Your task to perform on an android device: When is my next meeting? Image 0: 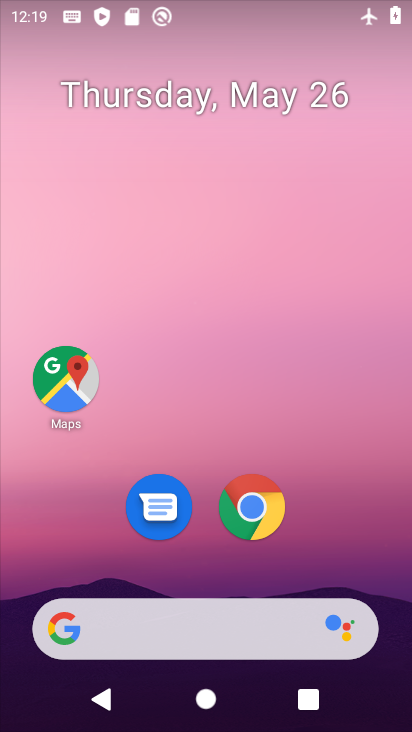
Step 0: drag from (216, 581) to (248, 185)
Your task to perform on an android device: When is my next meeting? Image 1: 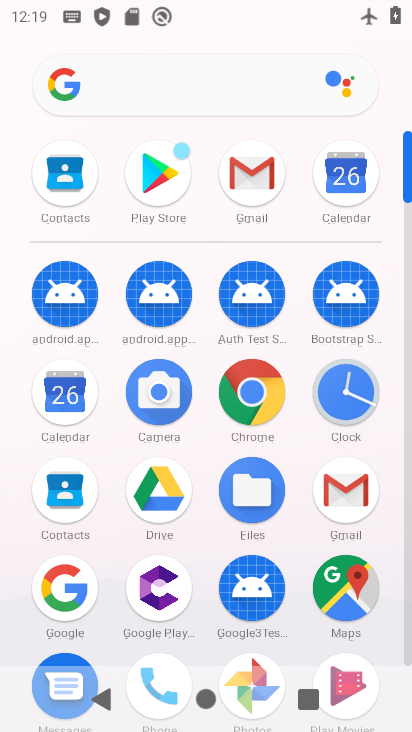
Step 1: click (71, 395)
Your task to perform on an android device: When is my next meeting? Image 2: 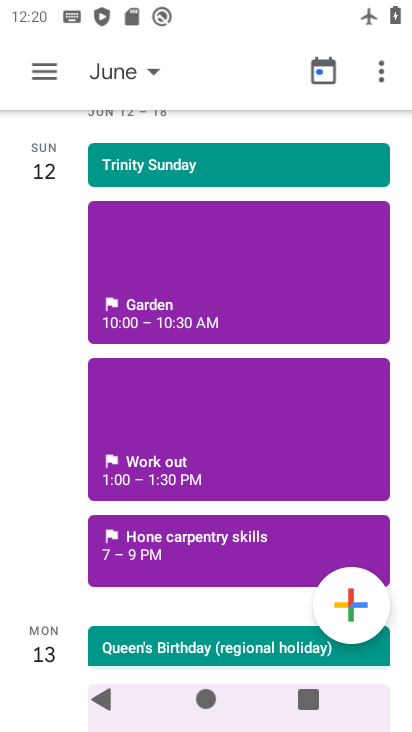
Step 2: drag from (195, 573) to (332, 191)
Your task to perform on an android device: When is my next meeting? Image 3: 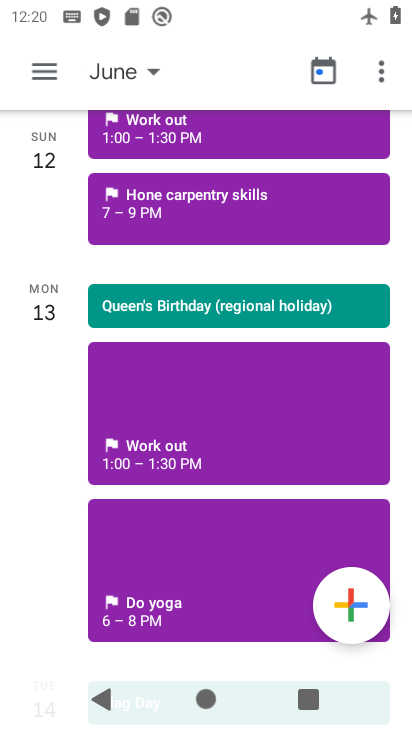
Step 3: click (154, 65)
Your task to perform on an android device: When is my next meeting? Image 4: 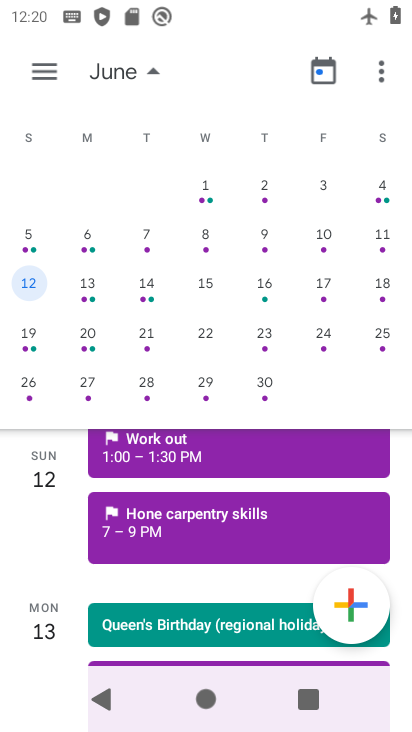
Step 4: drag from (114, 204) to (411, 212)
Your task to perform on an android device: When is my next meeting? Image 5: 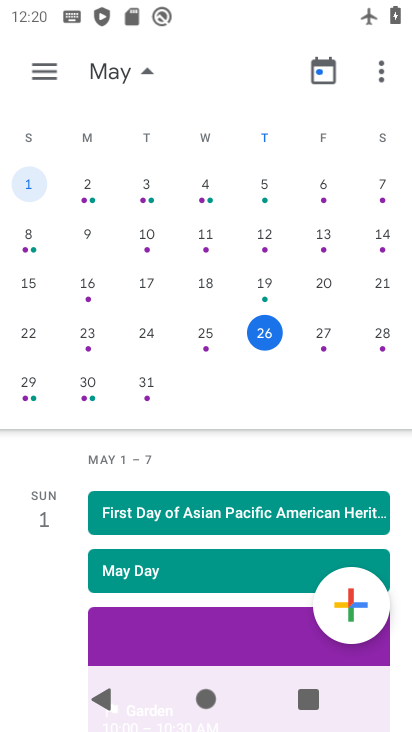
Step 5: drag from (261, 547) to (257, 192)
Your task to perform on an android device: When is my next meeting? Image 6: 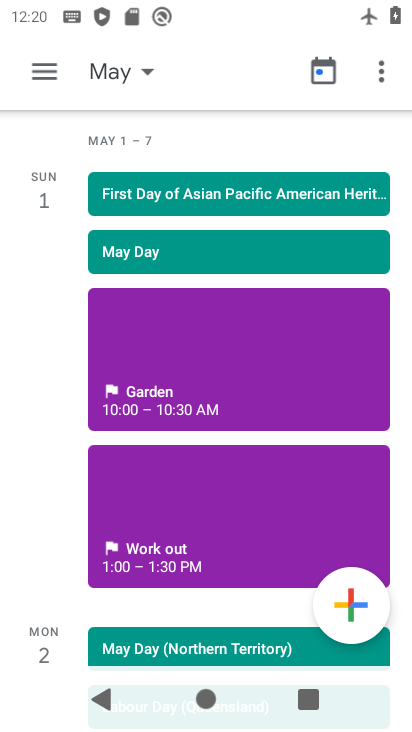
Step 6: drag from (234, 469) to (259, 191)
Your task to perform on an android device: When is my next meeting? Image 7: 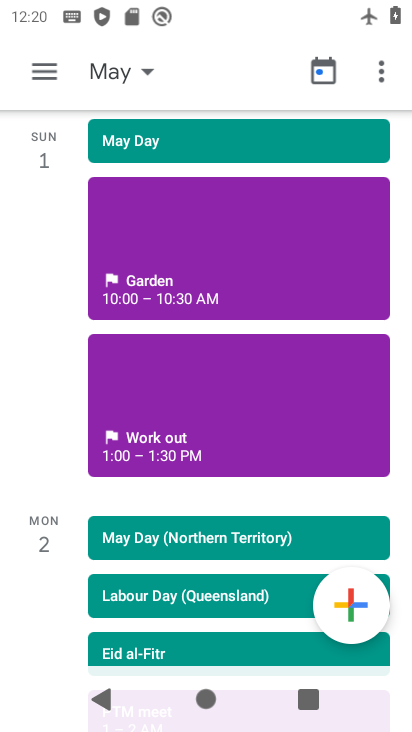
Step 7: drag from (241, 450) to (241, 292)
Your task to perform on an android device: When is my next meeting? Image 8: 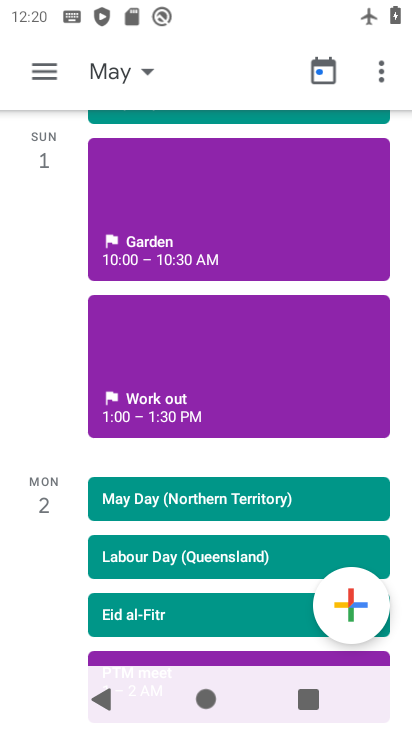
Step 8: drag from (260, 533) to (291, 220)
Your task to perform on an android device: When is my next meeting? Image 9: 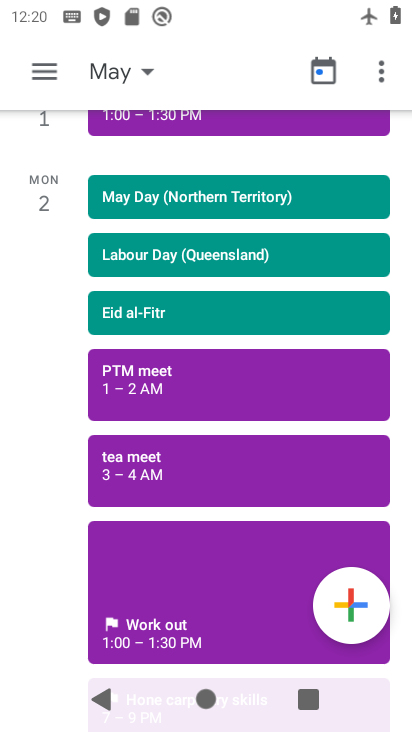
Step 9: click (189, 437)
Your task to perform on an android device: When is my next meeting? Image 10: 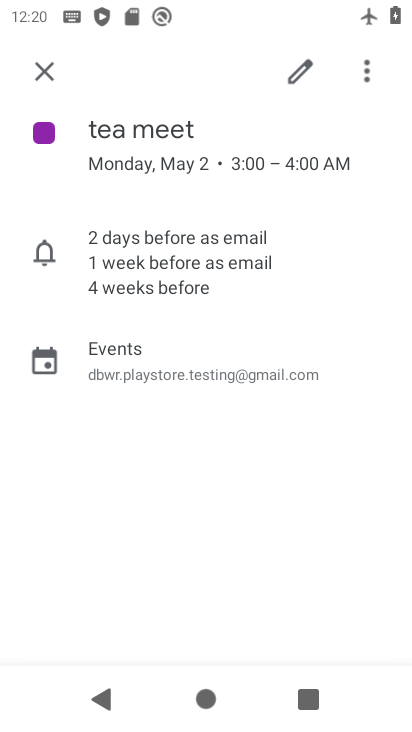
Step 10: task complete